Your task to perform on an android device: turn off translation in the chrome app Image 0: 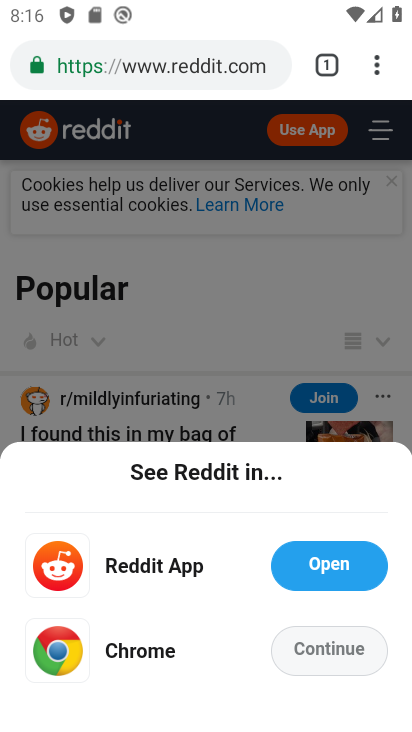
Step 0: press home button
Your task to perform on an android device: turn off translation in the chrome app Image 1: 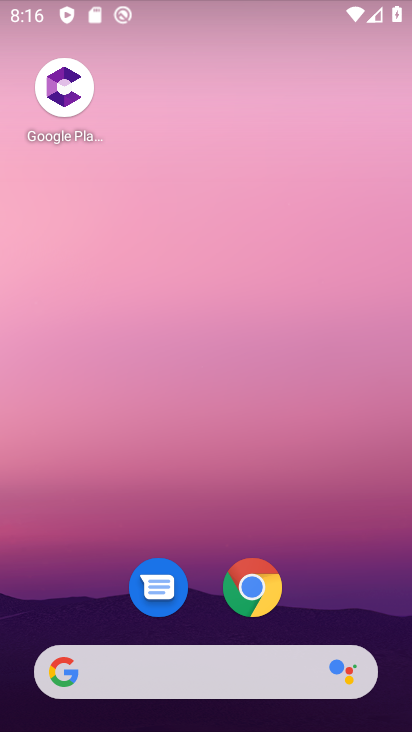
Step 1: drag from (385, 648) to (294, 62)
Your task to perform on an android device: turn off translation in the chrome app Image 2: 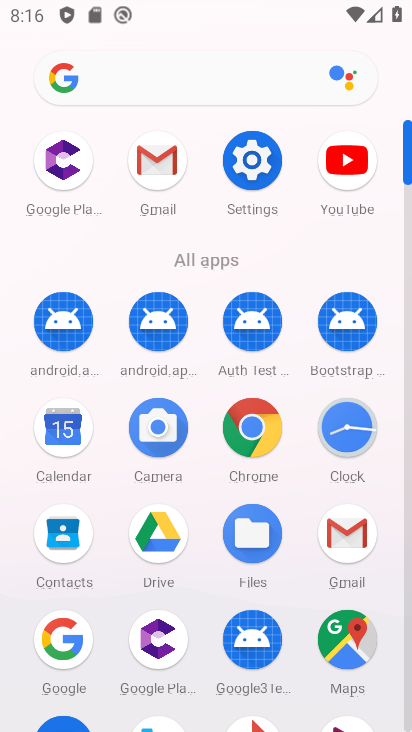
Step 2: click (255, 454)
Your task to perform on an android device: turn off translation in the chrome app Image 3: 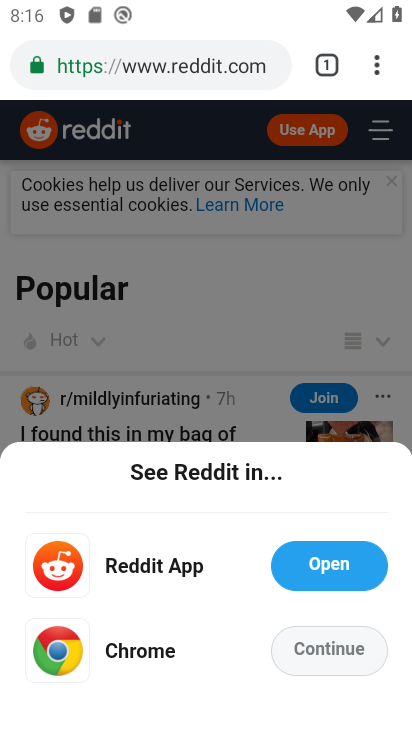
Step 3: press back button
Your task to perform on an android device: turn off translation in the chrome app Image 4: 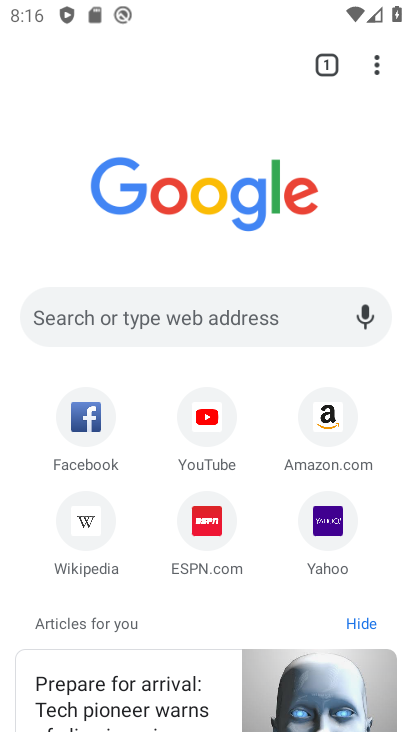
Step 4: click (371, 60)
Your task to perform on an android device: turn off translation in the chrome app Image 5: 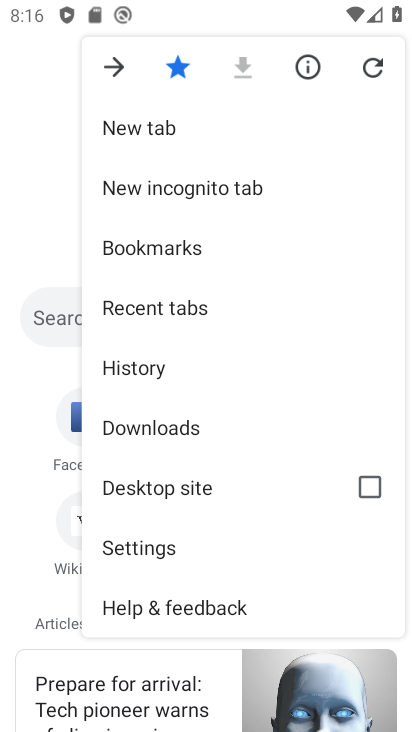
Step 5: click (203, 543)
Your task to perform on an android device: turn off translation in the chrome app Image 6: 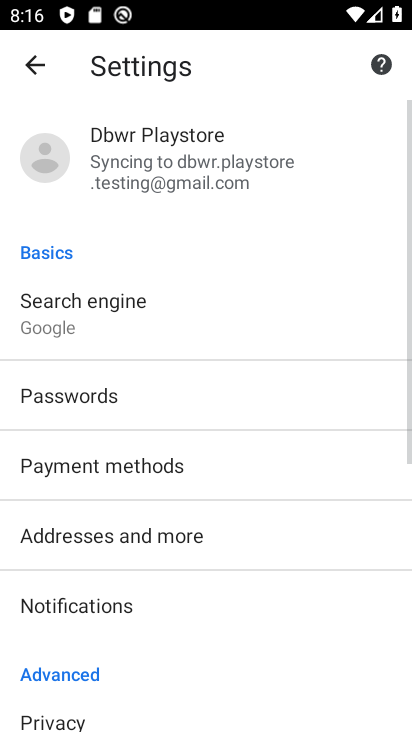
Step 6: drag from (129, 650) to (124, 161)
Your task to perform on an android device: turn off translation in the chrome app Image 7: 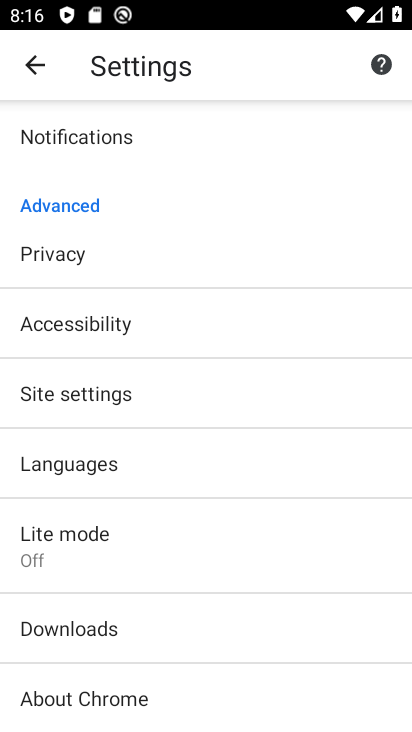
Step 7: click (159, 464)
Your task to perform on an android device: turn off translation in the chrome app Image 8: 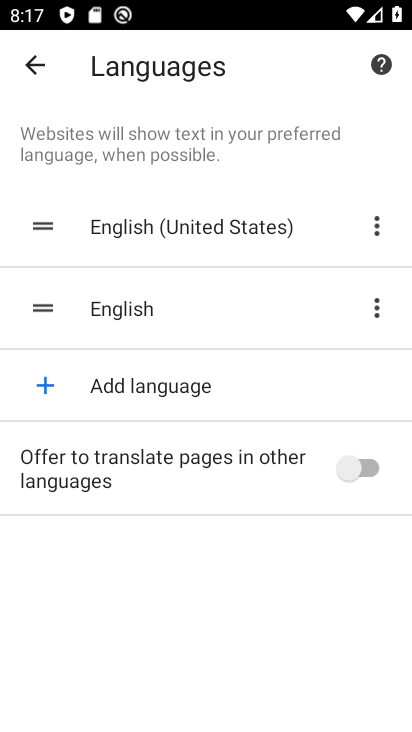
Step 8: task complete